Your task to perform on an android device: clear all cookies in the chrome app Image 0: 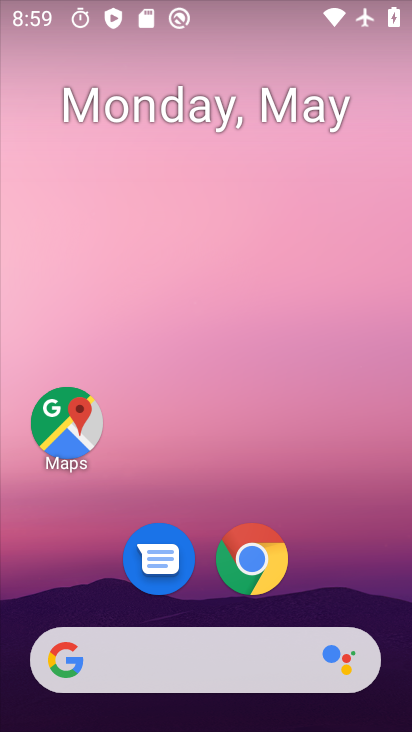
Step 0: click (251, 556)
Your task to perform on an android device: clear all cookies in the chrome app Image 1: 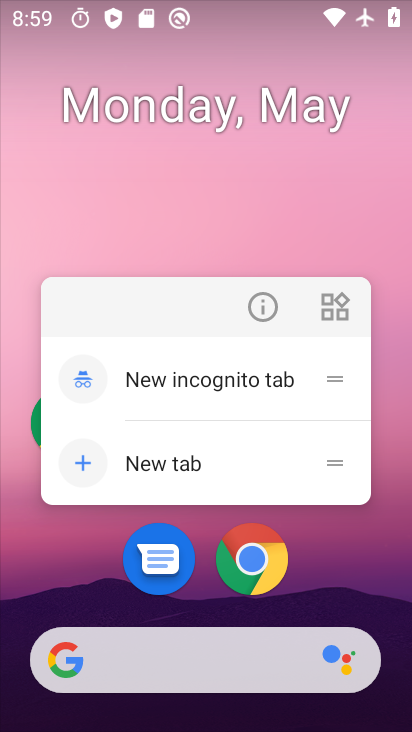
Step 1: click (256, 555)
Your task to perform on an android device: clear all cookies in the chrome app Image 2: 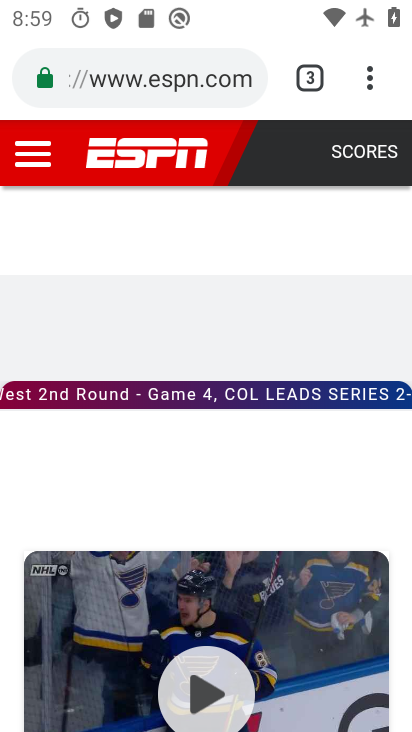
Step 2: click (372, 82)
Your task to perform on an android device: clear all cookies in the chrome app Image 3: 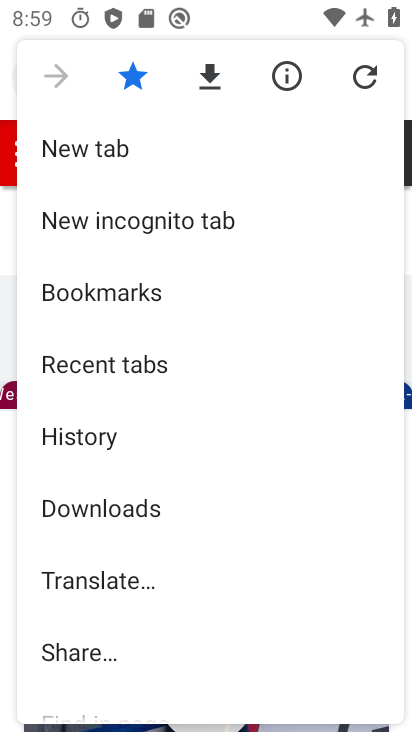
Step 3: click (78, 444)
Your task to perform on an android device: clear all cookies in the chrome app Image 4: 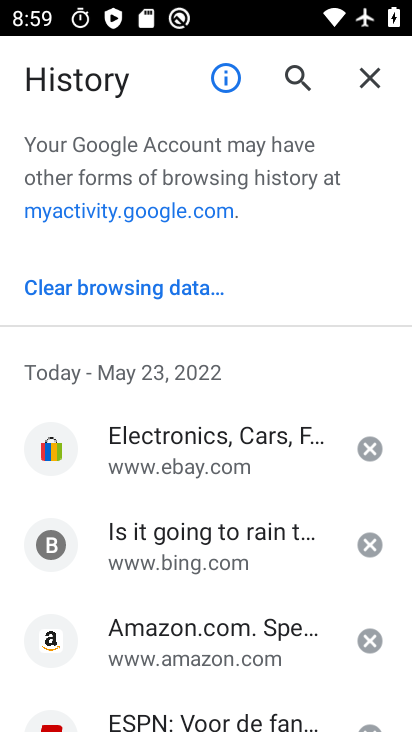
Step 4: click (92, 291)
Your task to perform on an android device: clear all cookies in the chrome app Image 5: 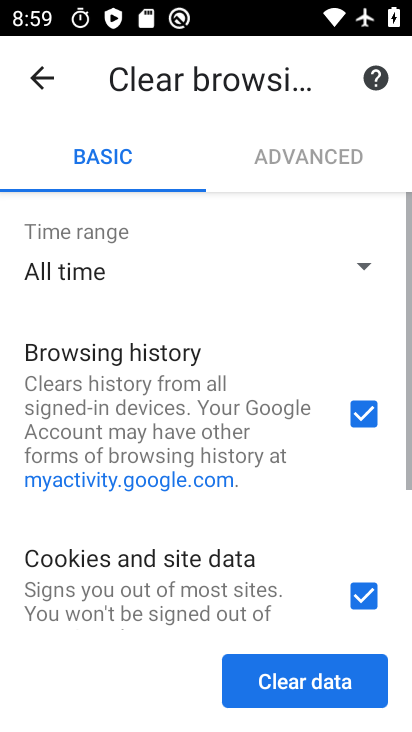
Step 5: click (320, 438)
Your task to perform on an android device: clear all cookies in the chrome app Image 6: 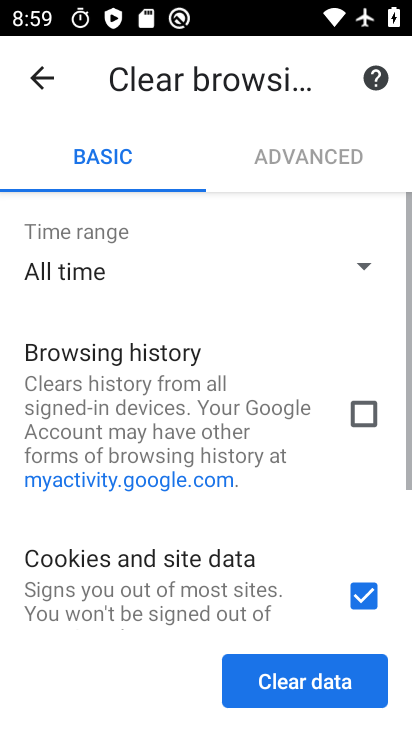
Step 6: drag from (272, 544) to (252, 172)
Your task to perform on an android device: clear all cookies in the chrome app Image 7: 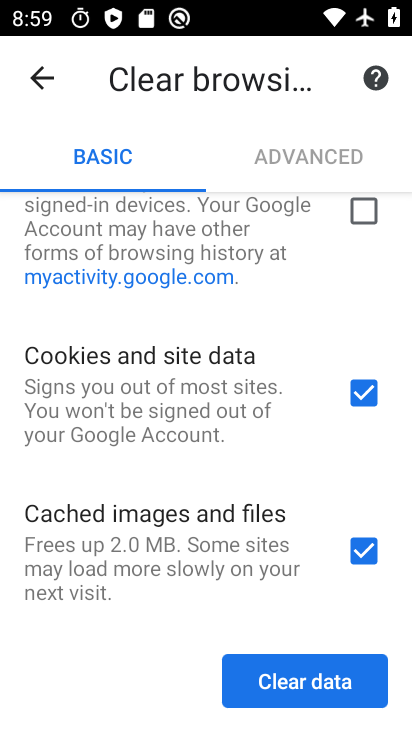
Step 7: click (353, 550)
Your task to perform on an android device: clear all cookies in the chrome app Image 8: 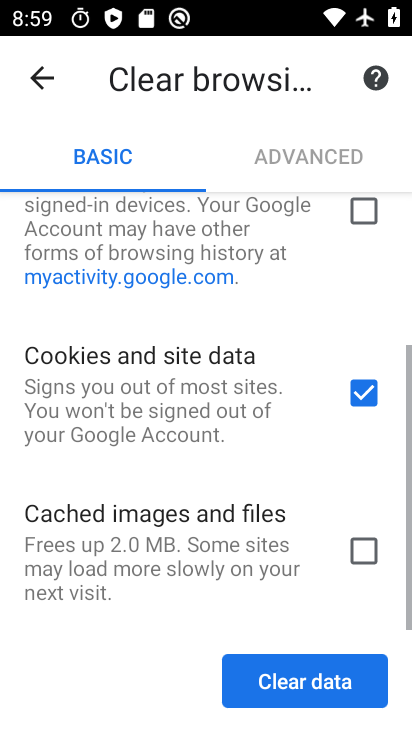
Step 8: click (264, 673)
Your task to perform on an android device: clear all cookies in the chrome app Image 9: 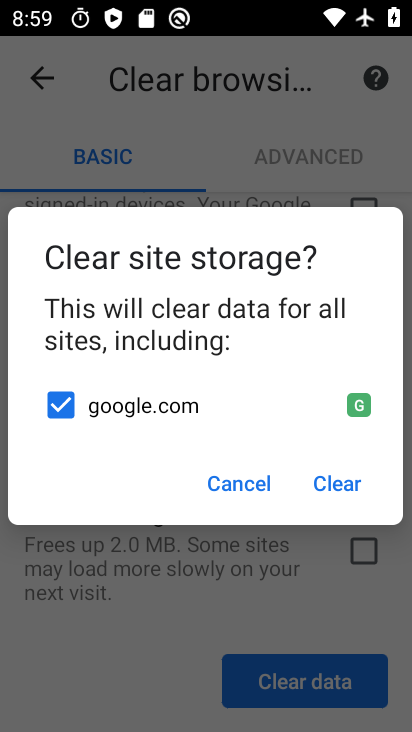
Step 9: click (338, 482)
Your task to perform on an android device: clear all cookies in the chrome app Image 10: 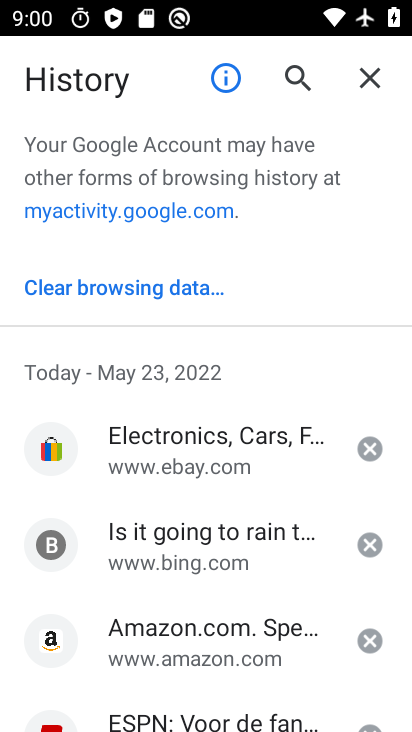
Step 10: task complete